Your task to perform on an android device: Open Yahoo.com Image 0: 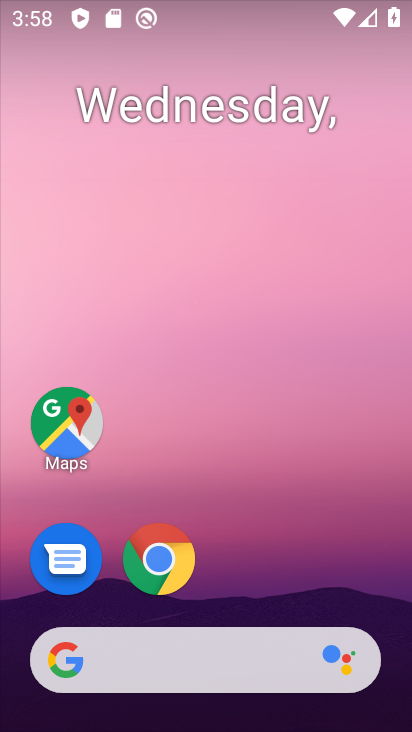
Step 0: click (151, 556)
Your task to perform on an android device: Open Yahoo.com Image 1: 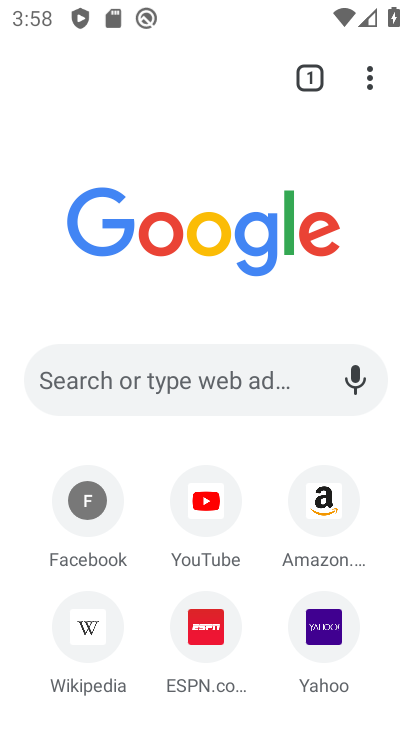
Step 1: click (315, 622)
Your task to perform on an android device: Open Yahoo.com Image 2: 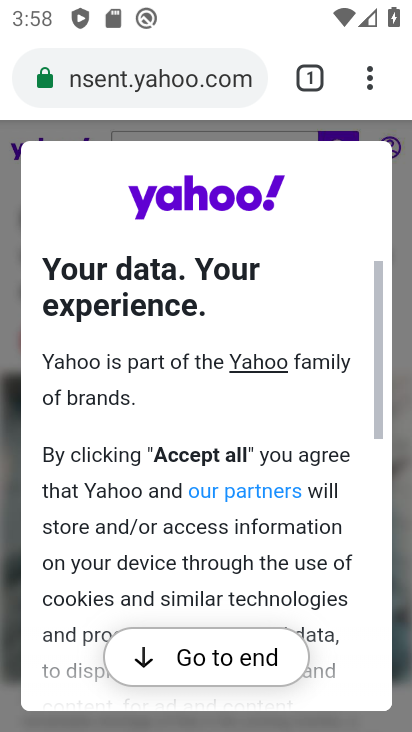
Step 2: task complete